Your task to perform on an android device: open app "Contacts" (install if not already installed) Image 0: 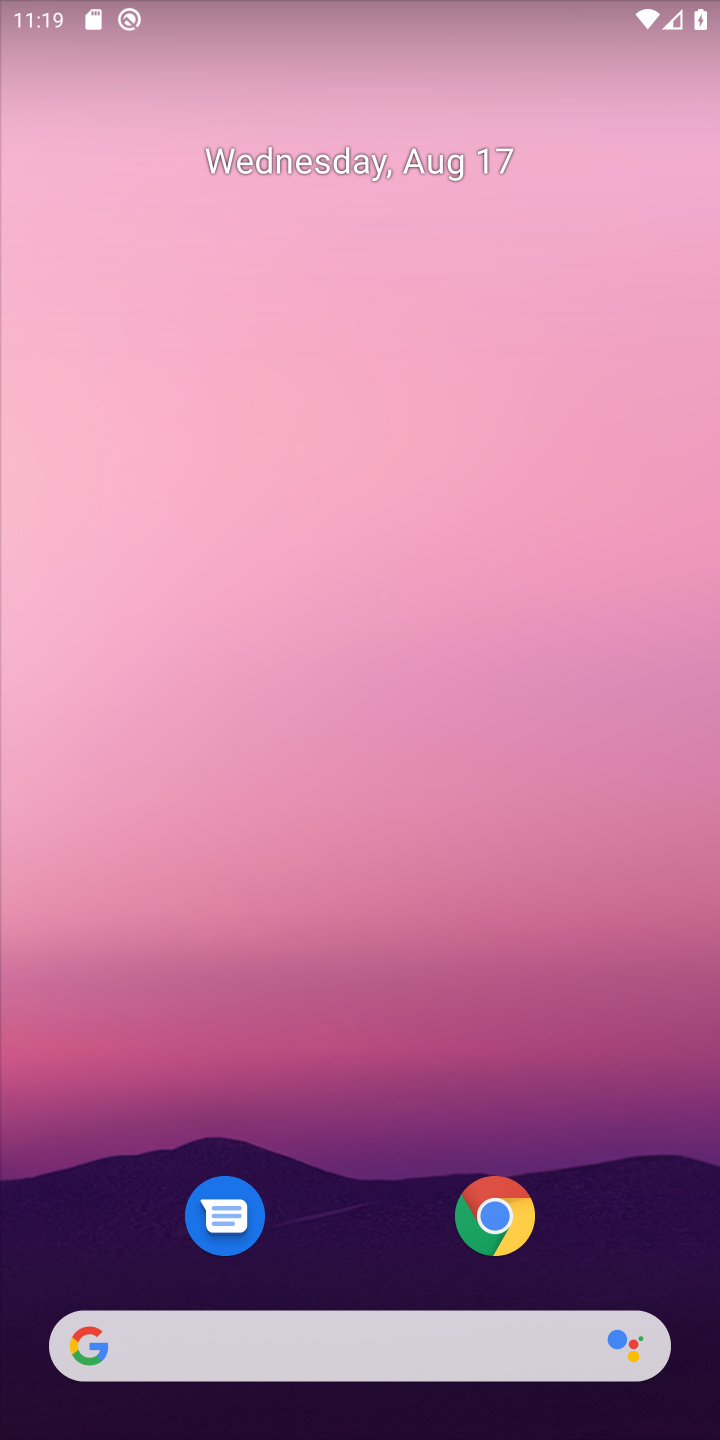
Step 0: drag from (370, 1267) to (385, 478)
Your task to perform on an android device: open app "Contacts" (install if not already installed) Image 1: 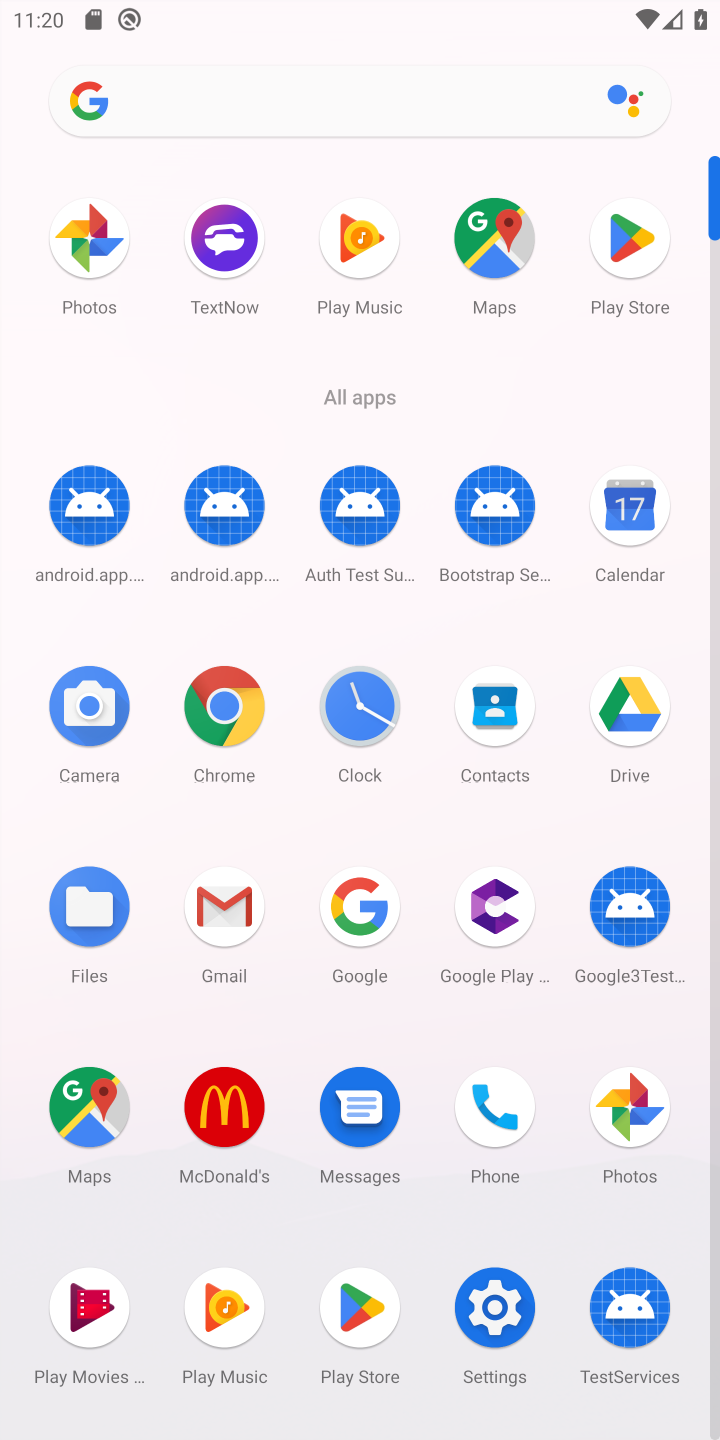
Step 1: click (374, 1290)
Your task to perform on an android device: open app "Contacts" (install if not already installed) Image 2: 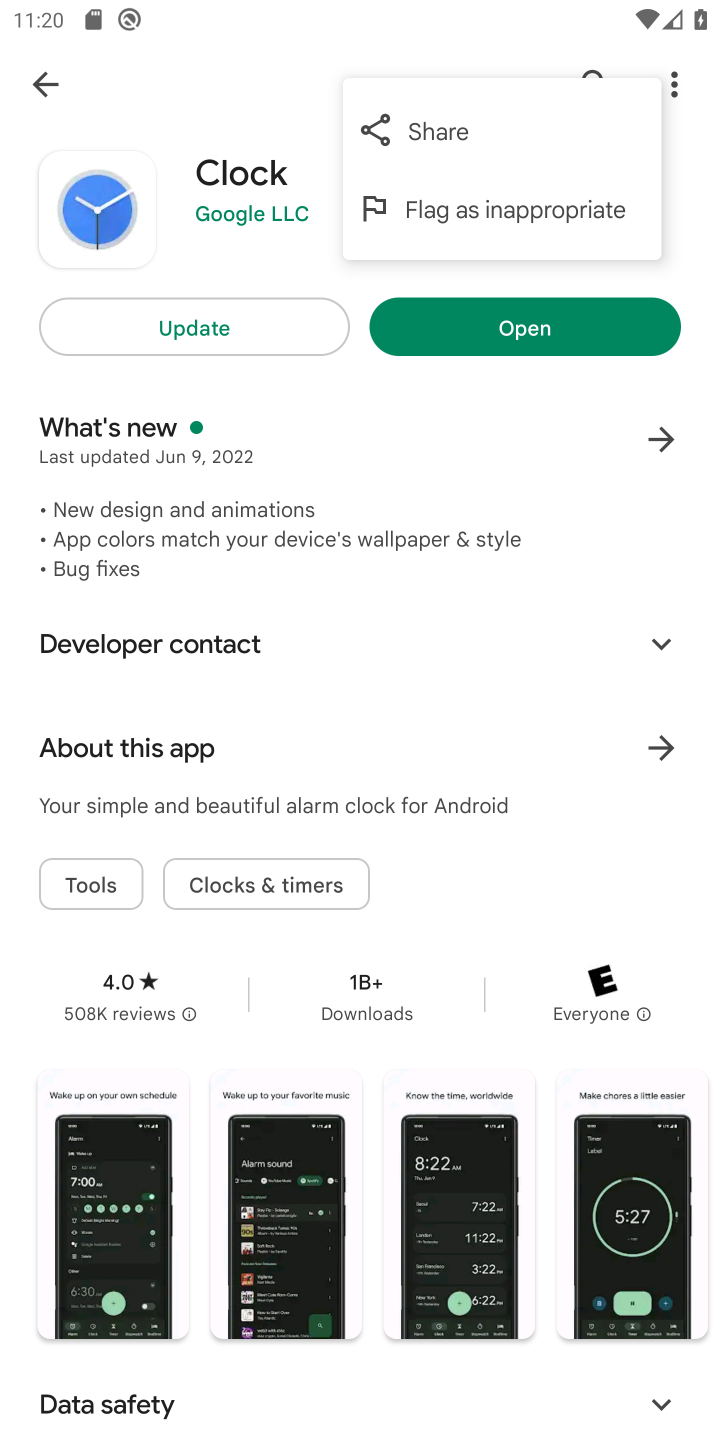
Step 2: click (709, 347)
Your task to perform on an android device: open app "Contacts" (install if not already installed) Image 3: 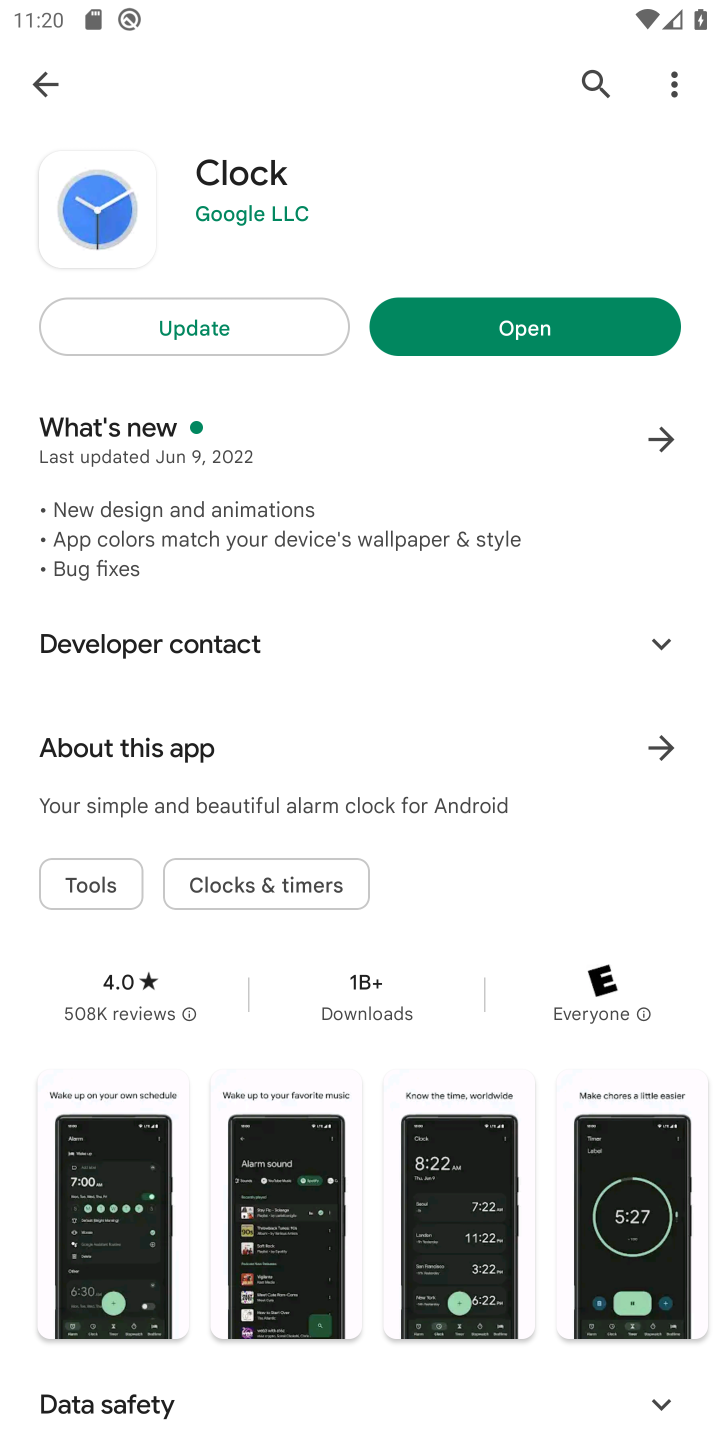
Step 3: click (594, 100)
Your task to perform on an android device: open app "Contacts" (install if not already installed) Image 4: 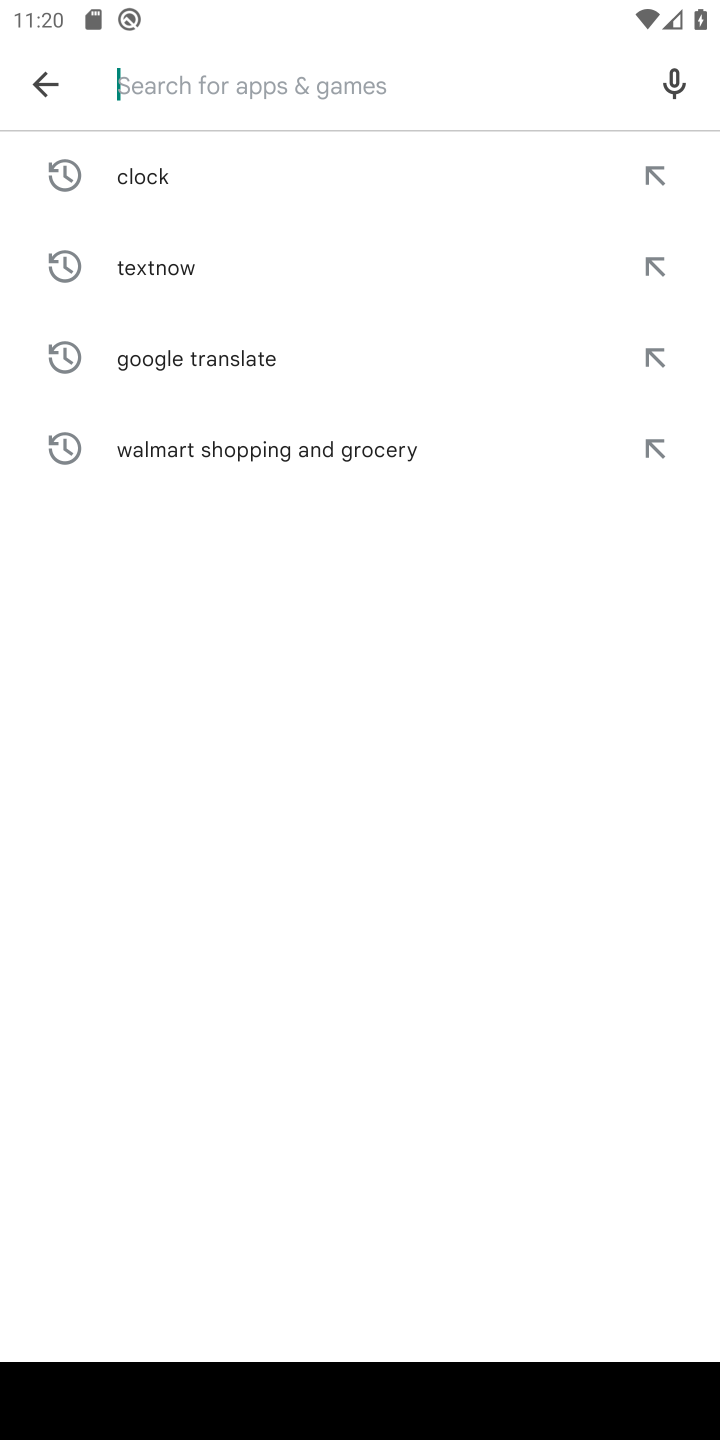
Step 4: type "contacts"
Your task to perform on an android device: open app "Contacts" (install if not already installed) Image 5: 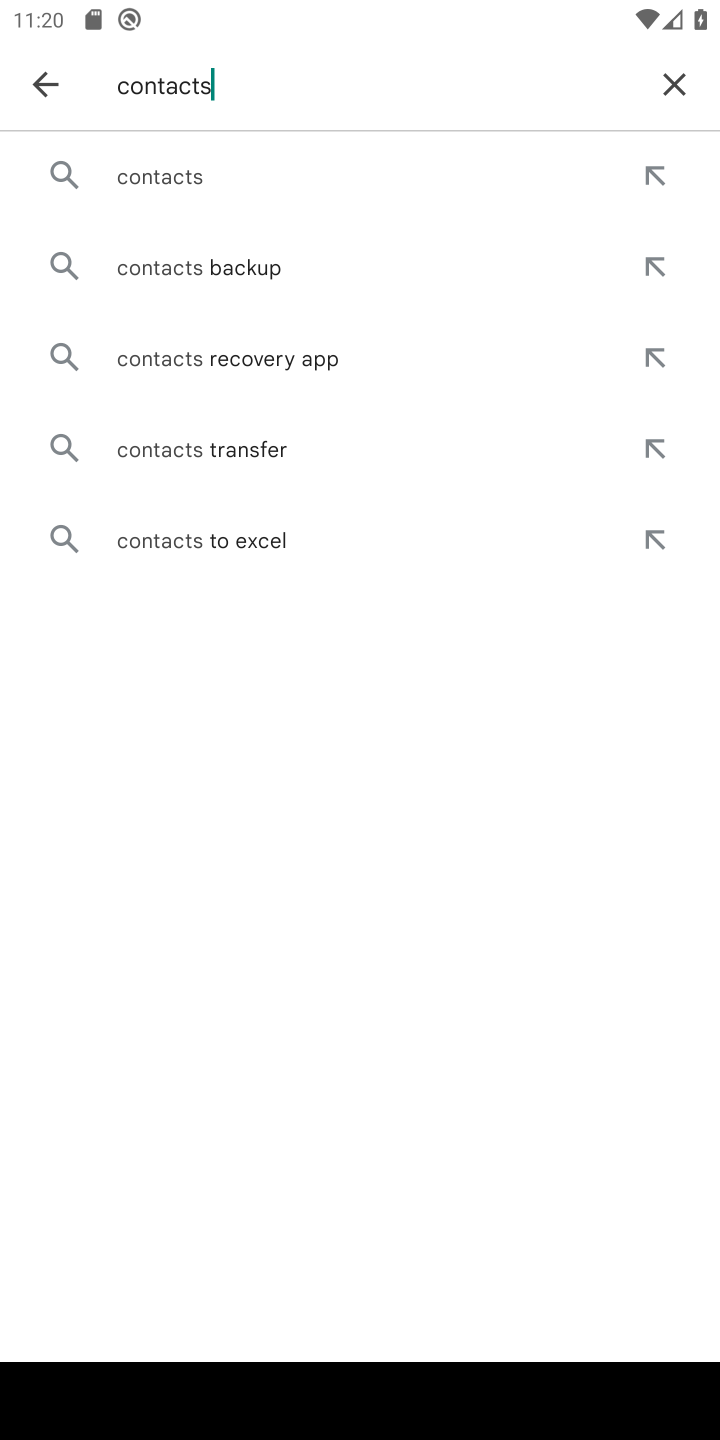
Step 5: click (136, 186)
Your task to perform on an android device: open app "Contacts" (install if not already installed) Image 6: 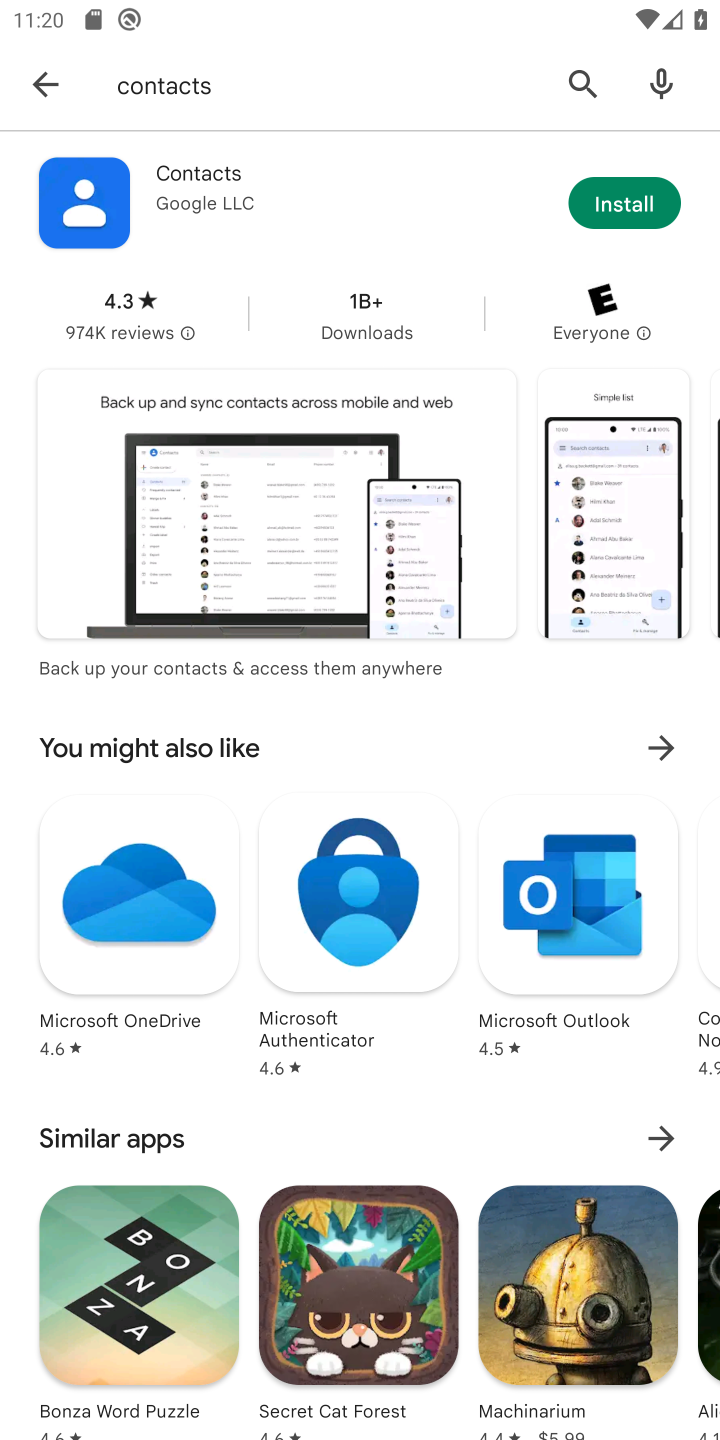
Step 6: click (446, 176)
Your task to perform on an android device: open app "Contacts" (install if not already installed) Image 7: 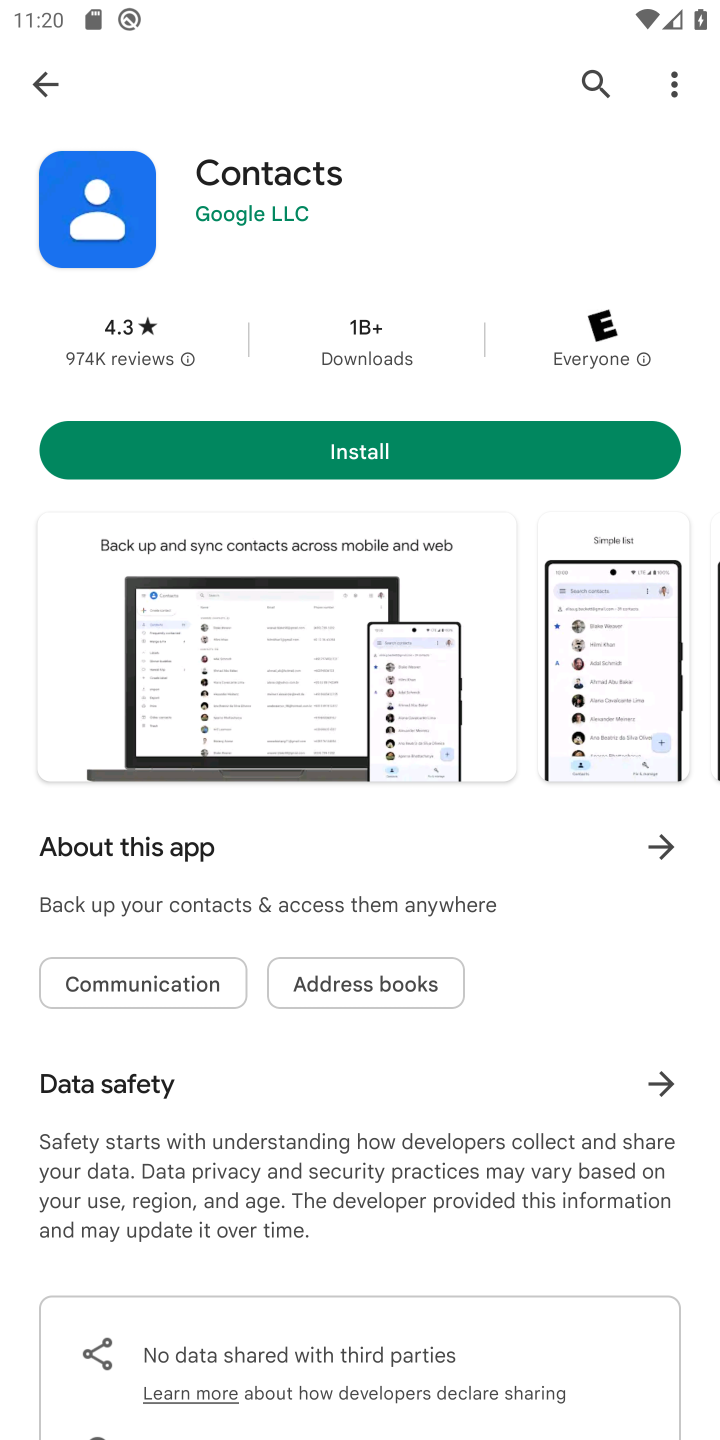
Step 7: click (497, 451)
Your task to perform on an android device: open app "Contacts" (install if not already installed) Image 8: 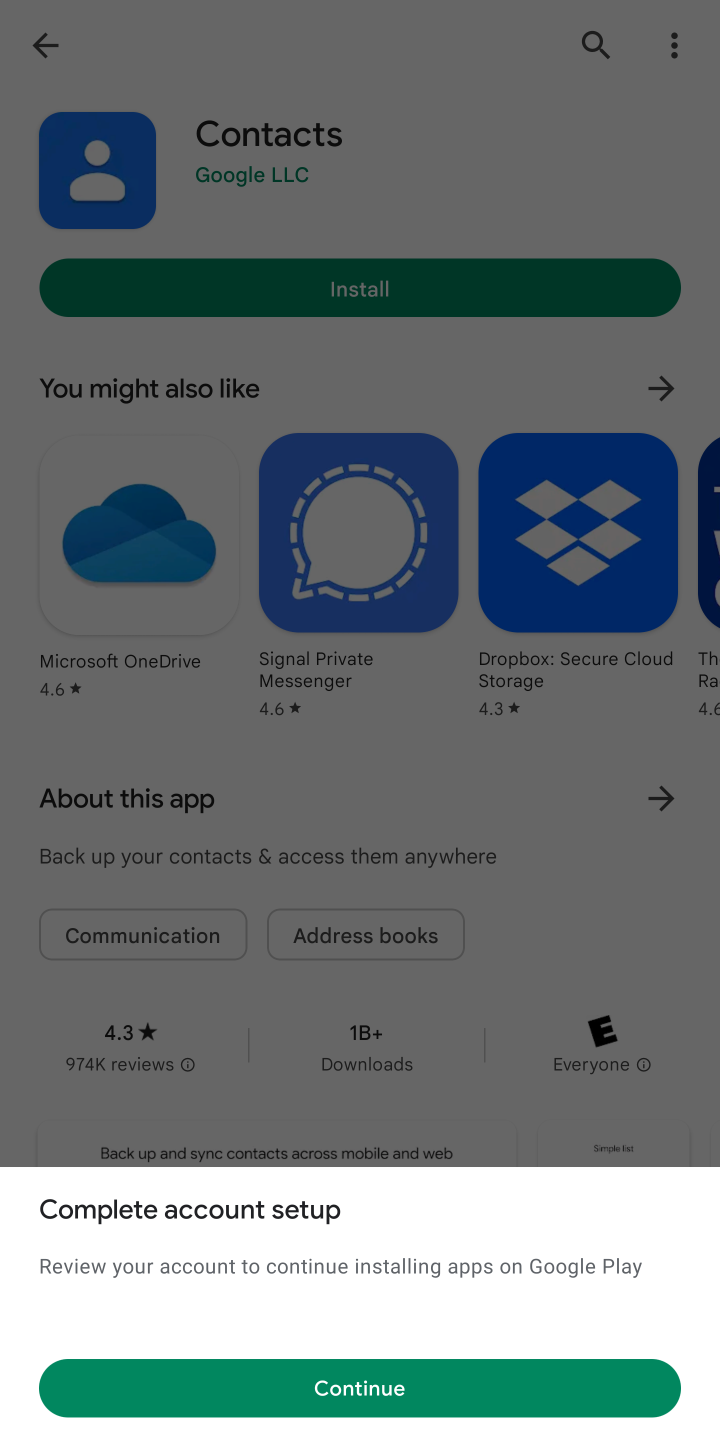
Step 8: click (270, 1401)
Your task to perform on an android device: open app "Contacts" (install if not already installed) Image 9: 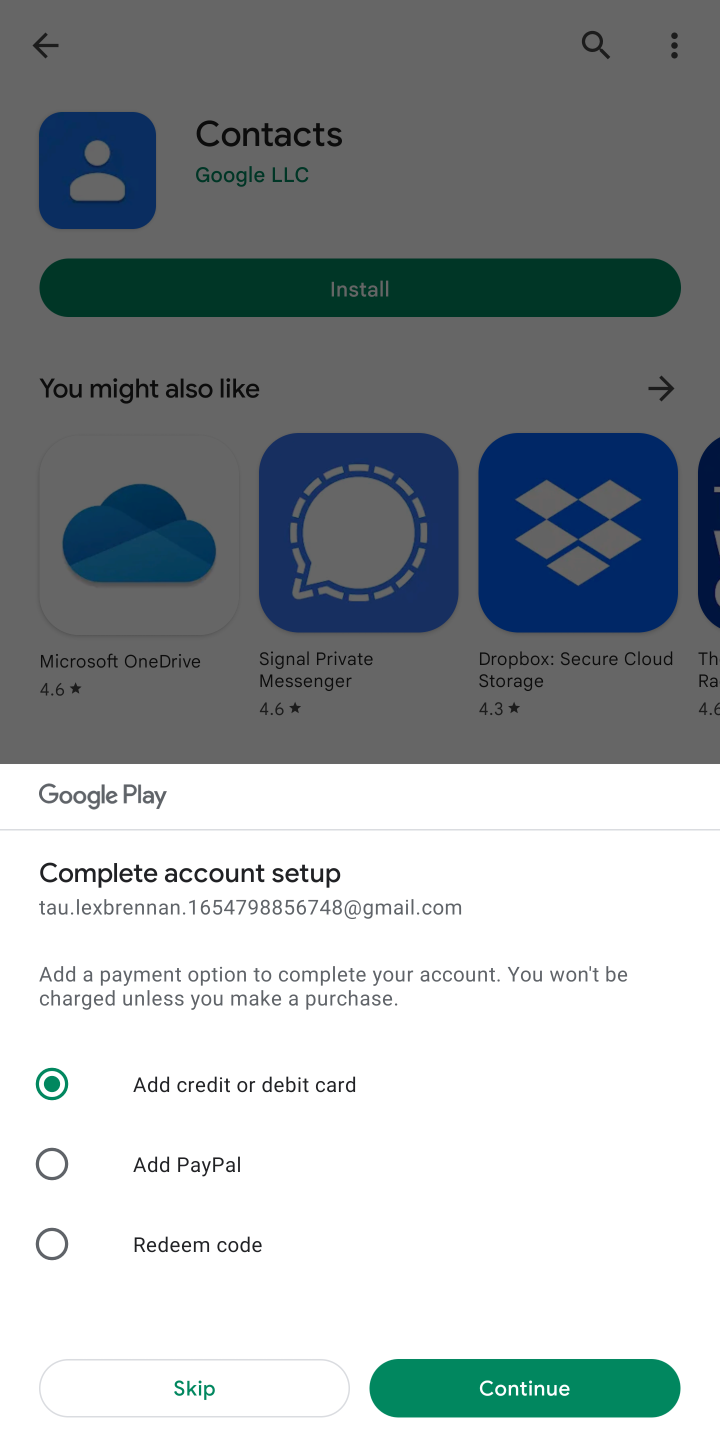
Step 9: click (118, 1383)
Your task to perform on an android device: open app "Contacts" (install if not already installed) Image 10: 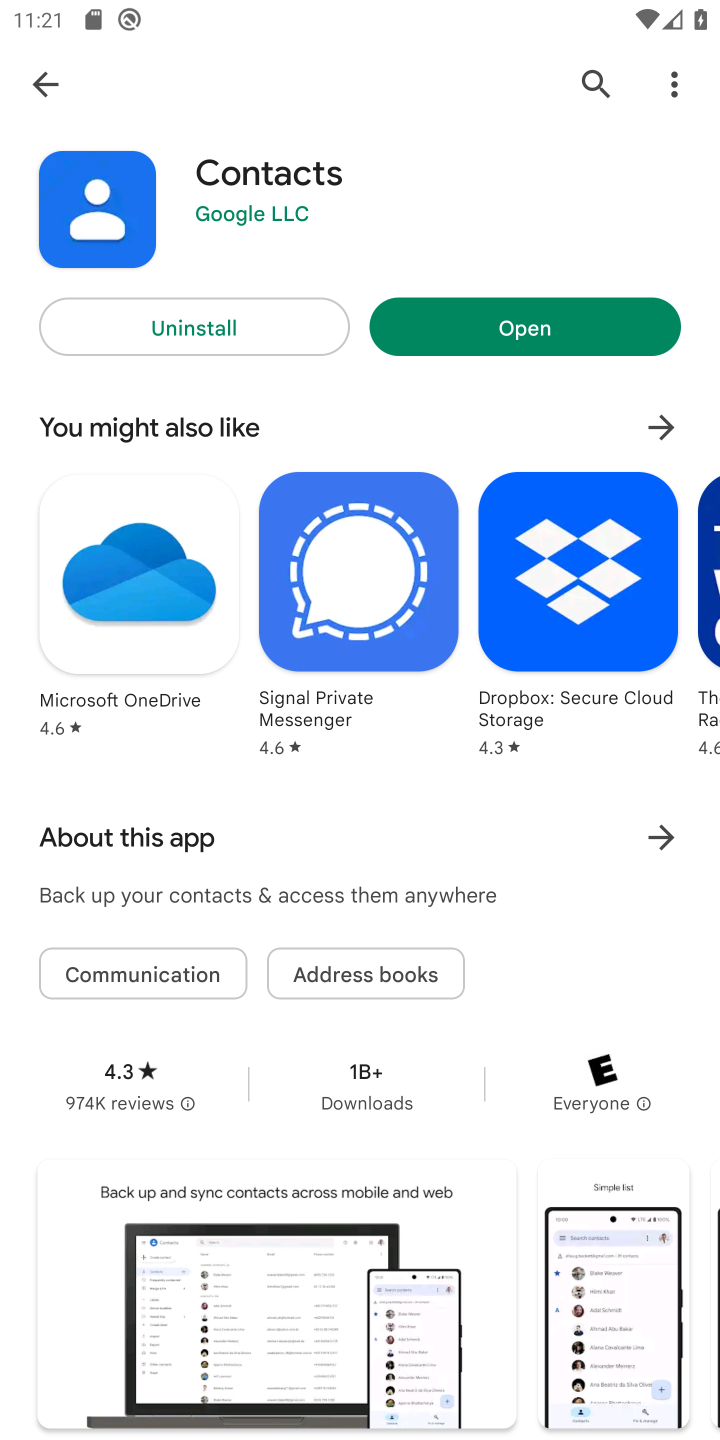
Step 10: click (492, 332)
Your task to perform on an android device: open app "Contacts" (install if not already installed) Image 11: 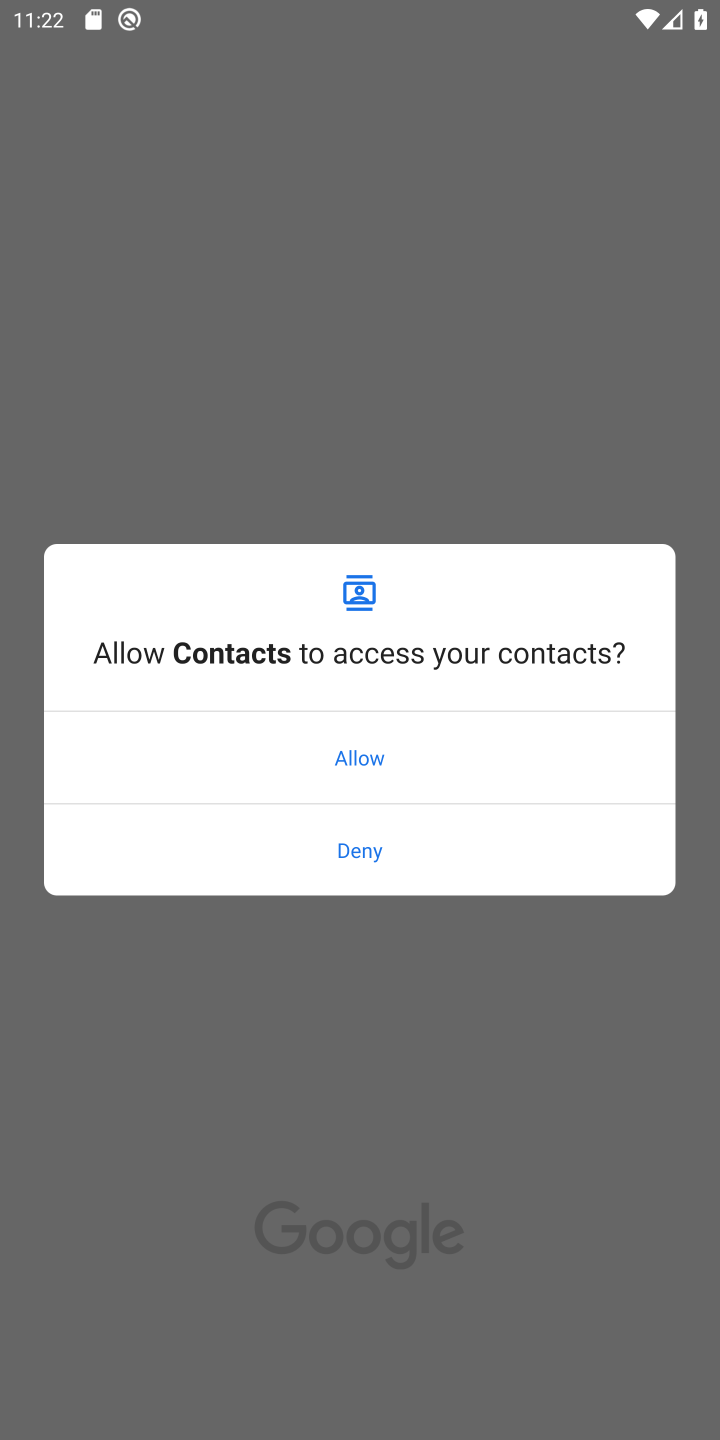
Step 11: click (403, 770)
Your task to perform on an android device: open app "Contacts" (install if not already installed) Image 12: 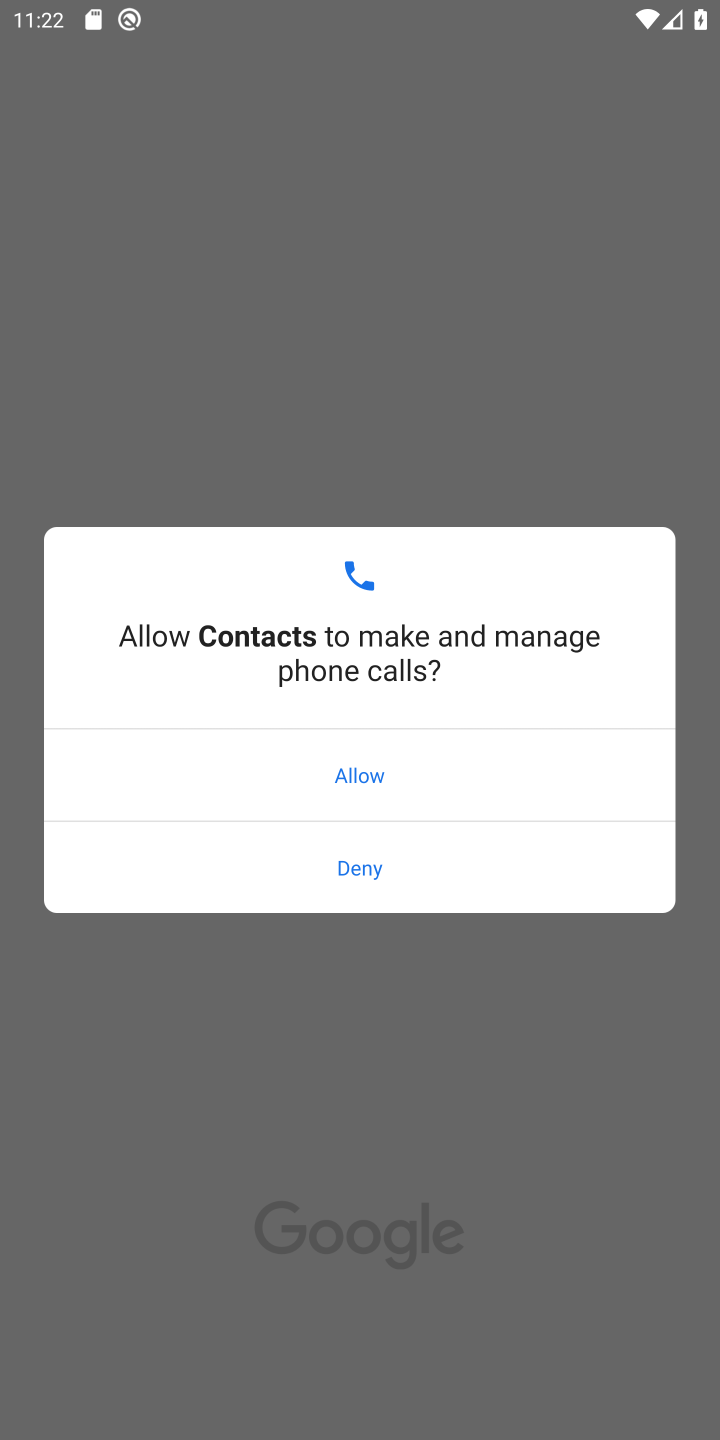
Step 12: click (364, 790)
Your task to perform on an android device: open app "Contacts" (install if not already installed) Image 13: 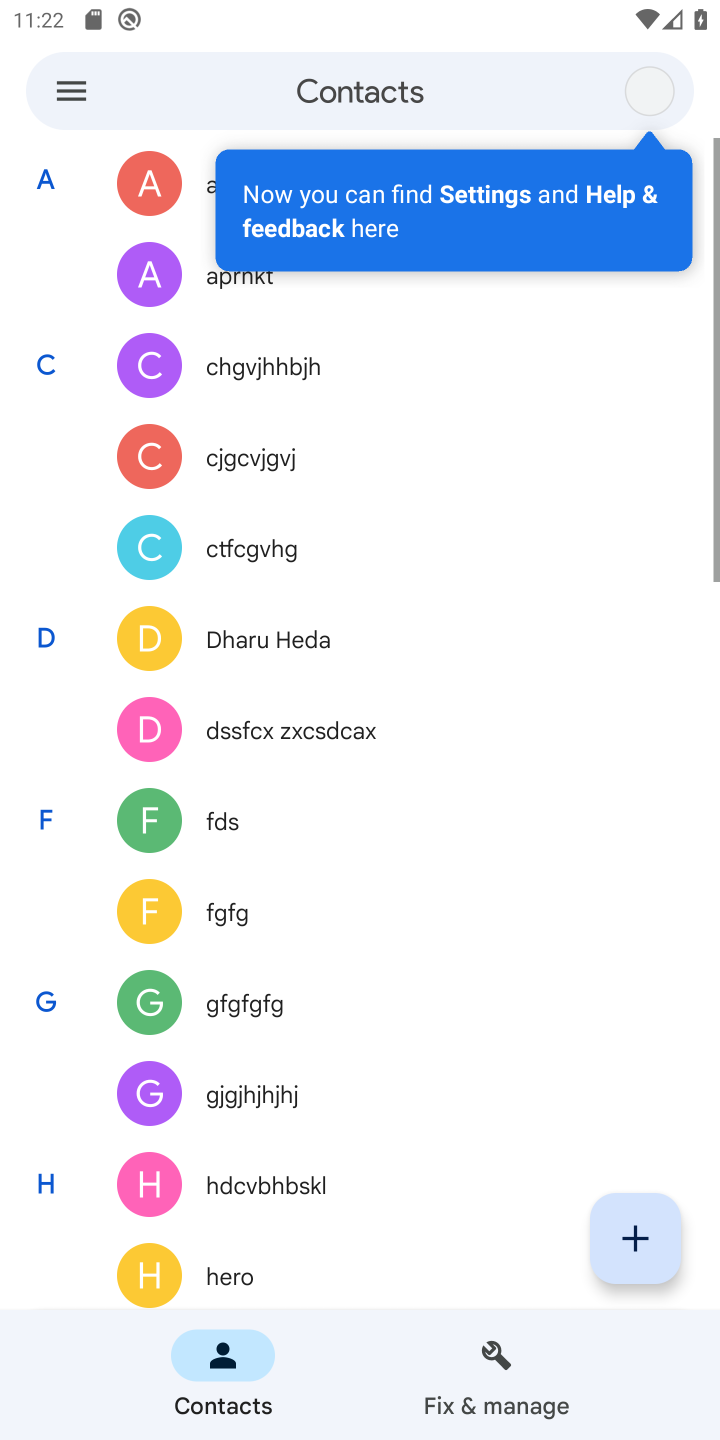
Step 13: task complete